Your task to perform on an android device: turn on airplane mode Image 0: 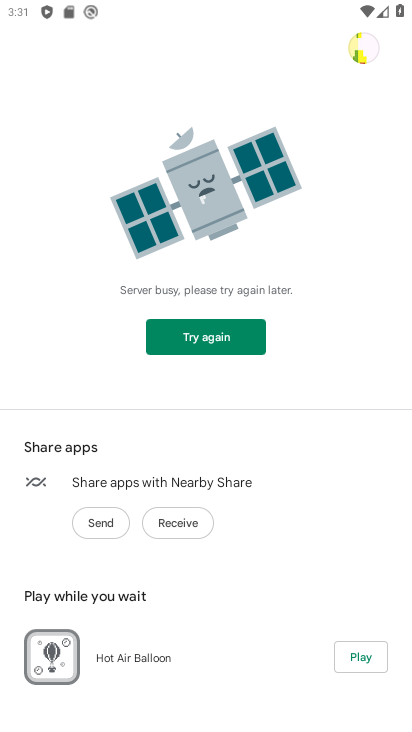
Step 0: press home button
Your task to perform on an android device: turn on airplane mode Image 1: 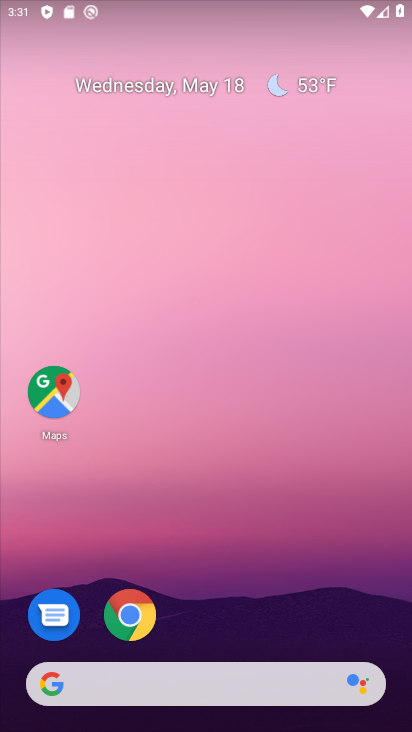
Step 1: drag from (262, 621) to (286, 215)
Your task to perform on an android device: turn on airplane mode Image 2: 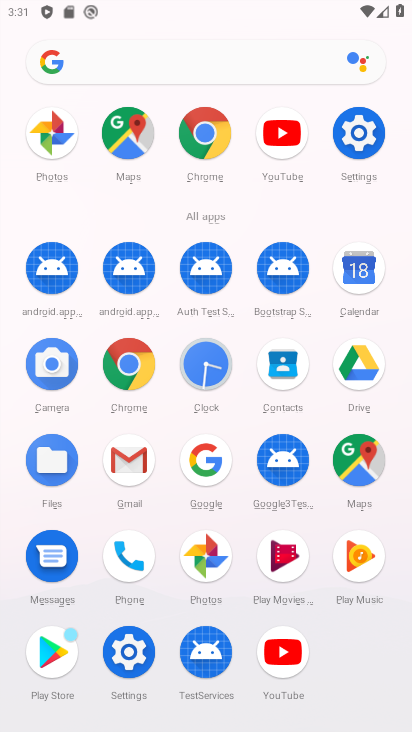
Step 2: click (356, 109)
Your task to perform on an android device: turn on airplane mode Image 3: 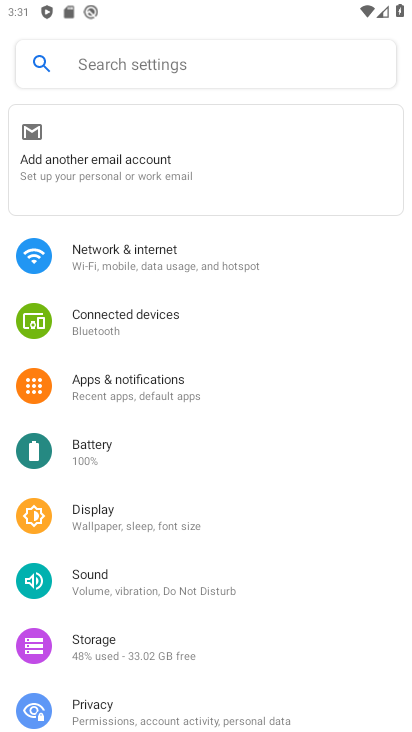
Step 3: click (129, 575)
Your task to perform on an android device: turn on airplane mode Image 4: 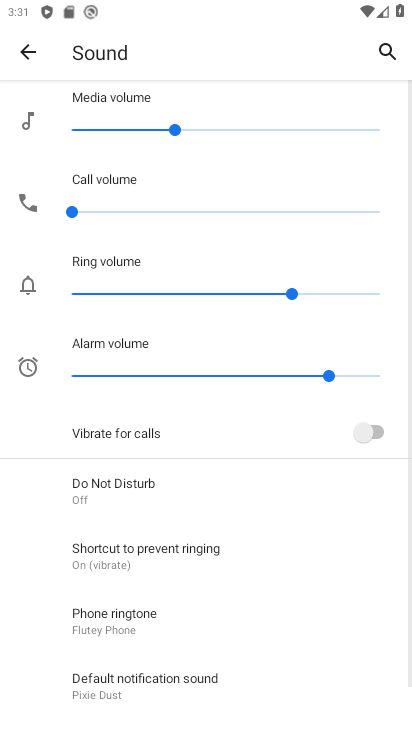
Step 4: click (32, 40)
Your task to perform on an android device: turn on airplane mode Image 5: 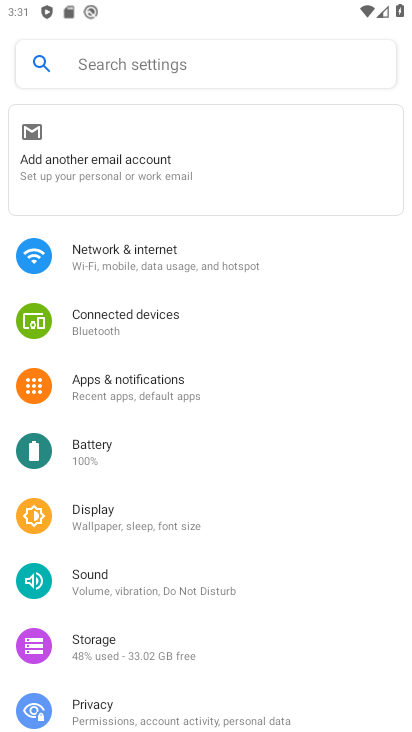
Step 5: drag from (201, 208) to (219, 466)
Your task to perform on an android device: turn on airplane mode Image 6: 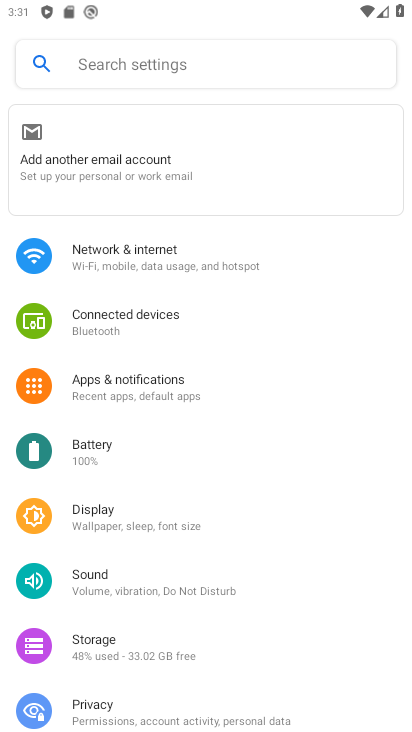
Step 6: click (187, 262)
Your task to perform on an android device: turn on airplane mode Image 7: 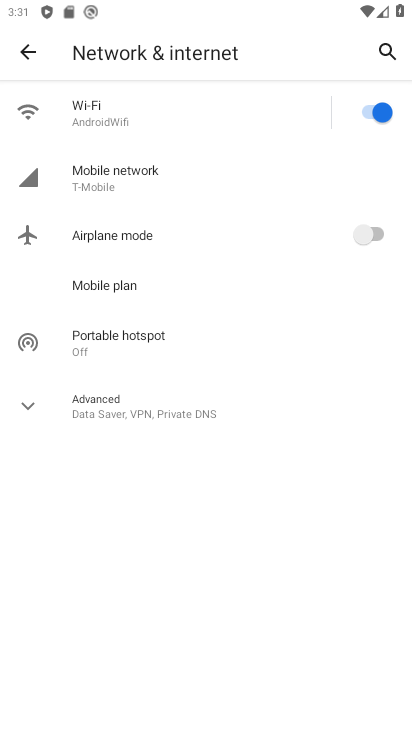
Step 7: click (381, 234)
Your task to perform on an android device: turn on airplane mode Image 8: 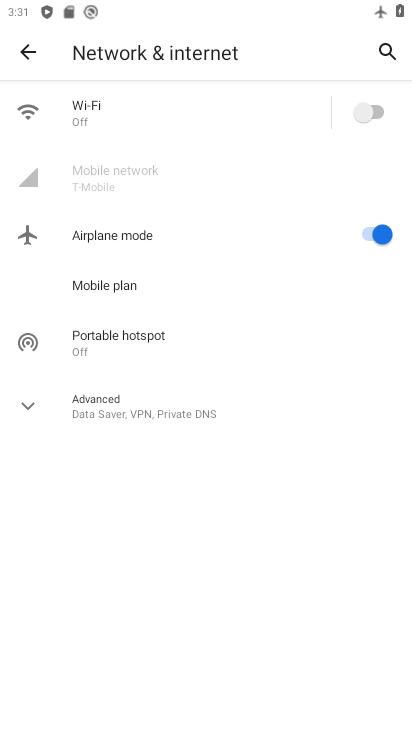
Step 8: task complete